Your task to perform on an android device: toggle javascript in the chrome app Image 0: 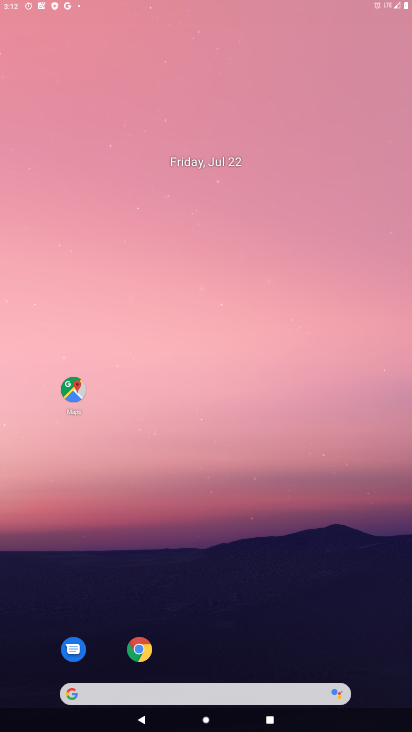
Step 0: drag from (305, 590) to (266, 70)
Your task to perform on an android device: toggle javascript in the chrome app Image 1: 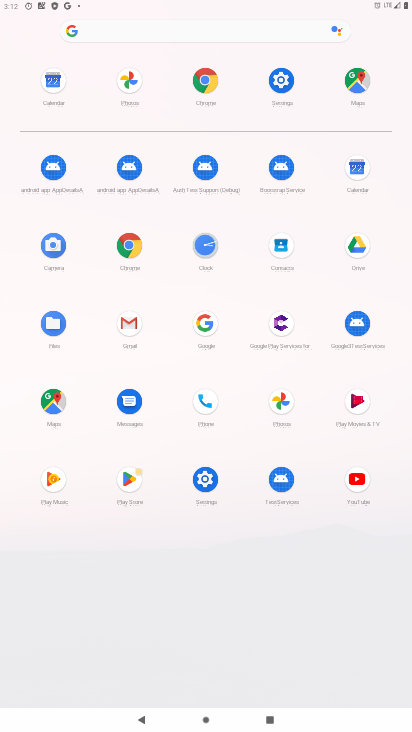
Step 1: click (205, 80)
Your task to perform on an android device: toggle javascript in the chrome app Image 2: 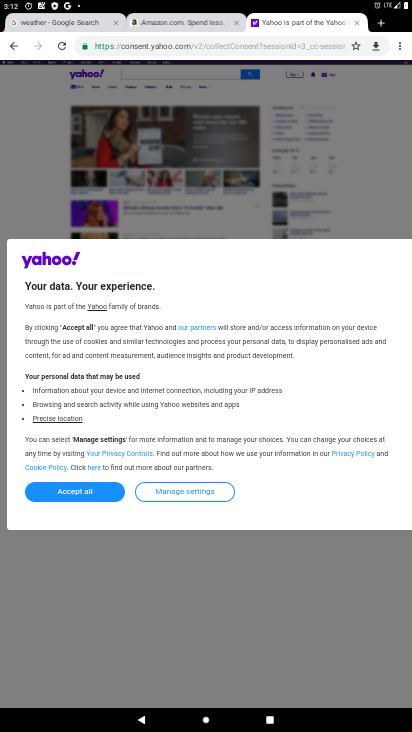
Step 2: drag from (392, 47) to (313, 338)
Your task to perform on an android device: toggle javascript in the chrome app Image 3: 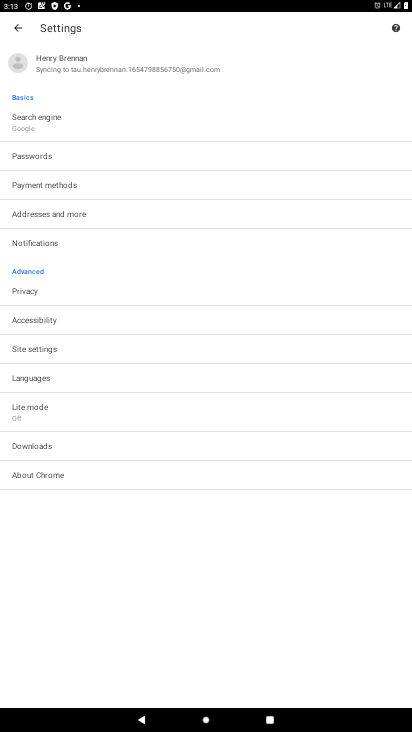
Step 3: click (48, 356)
Your task to perform on an android device: toggle javascript in the chrome app Image 4: 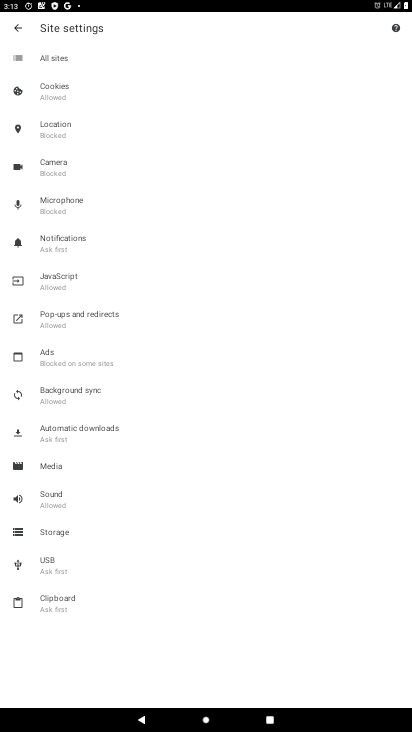
Step 4: click (64, 285)
Your task to perform on an android device: toggle javascript in the chrome app Image 5: 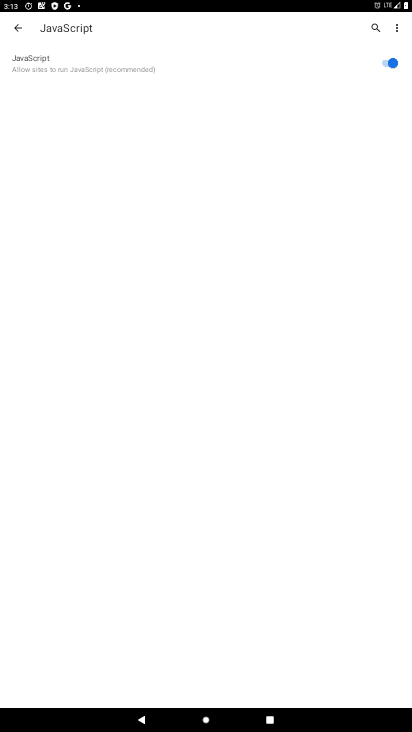
Step 5: click (387, 61)
Your task to perform on an android device: toggle javascript in the chrome app Image 6: 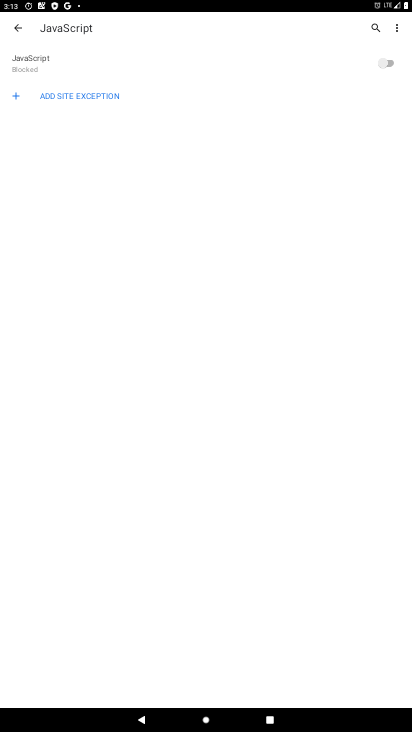
Step 6: task complete